Your task to perform on an android device: Open the calendar app, open the side menu, and click the "Day" option Image 0: 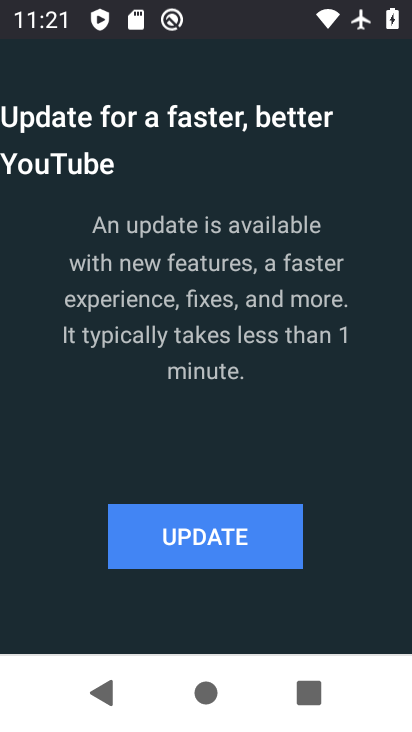
Step 0: press home button
Your task to perform on an android device: Open the calendar app, open the side menu, and click the "Day" option Image 1: 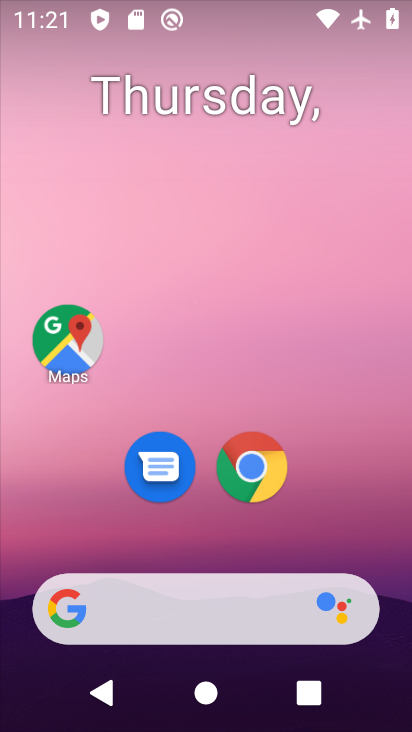
Step 1: drag from (352, 503) to (293, 9)
Your task to perform on an android device: Open the calendar app, open the side menu, and click the "Day" option Image 2: 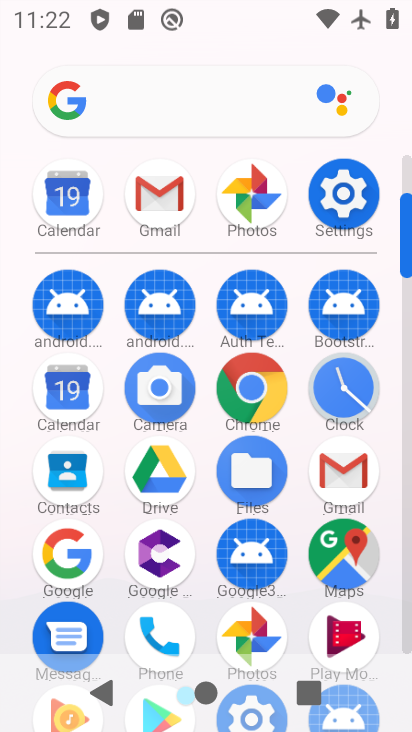
Step 2: click (65, 203)
Your task to perform on an android device: Open the calendar app, open the side menu, and click the "Day" option Image 3: 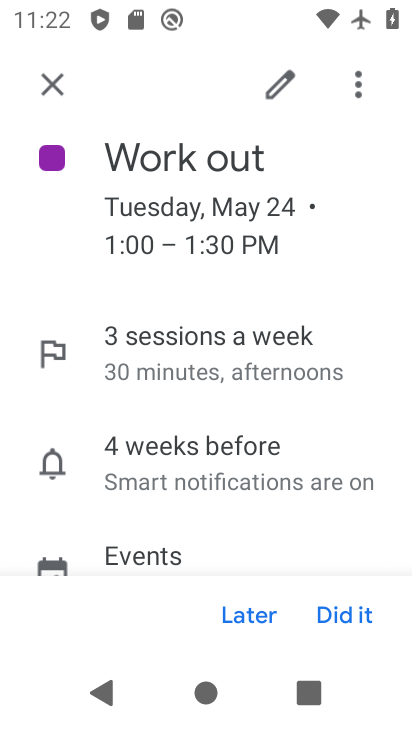
Step 3: click (45, 89)
Your task to perform on an android device: Open the calendar app, open the side menu, and click the "Day" option Image 4: 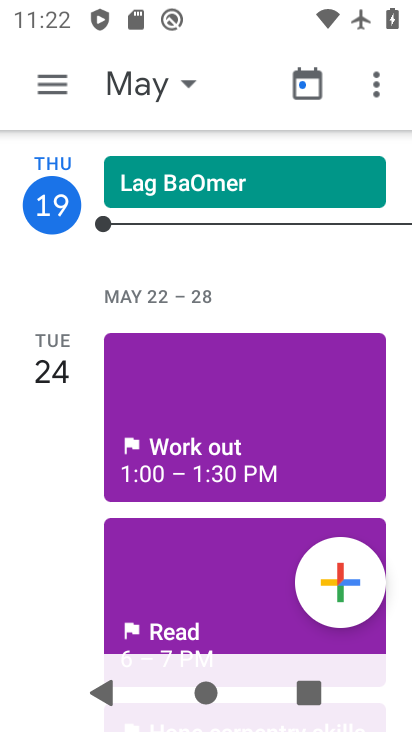
Step 4: click (49, 82)
Your task to perform on an android device: Open the calendar app, open the side menu, and click the "Day" option Image 5: 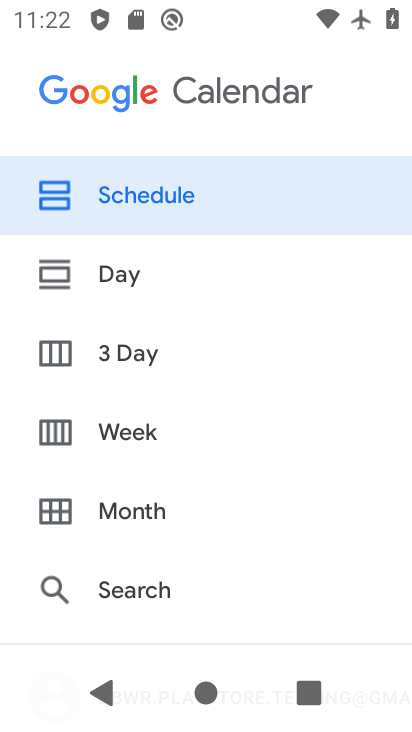
Step 5: click (98, 274)
Your task to perform on an android device: Open the calendar app, open the side menu, and click the "Day" option Image 6: 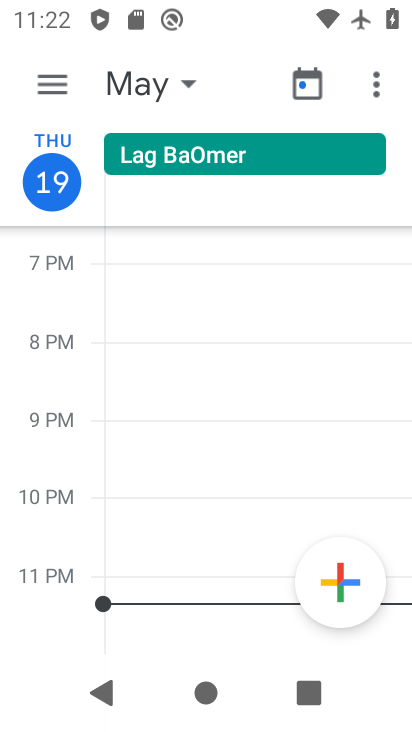
Step 6: task complete